Your task to perform on an android device: see creations saved in the google photos Image 0: 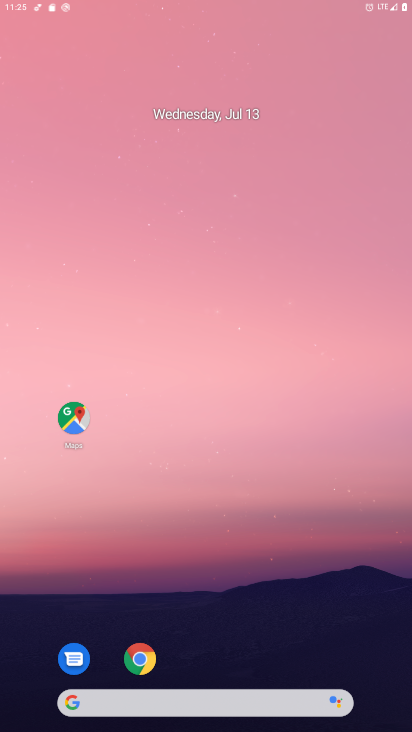
Step 0: press home button
Your task to perform on an android device: see creations saved in the google photos Image 1: 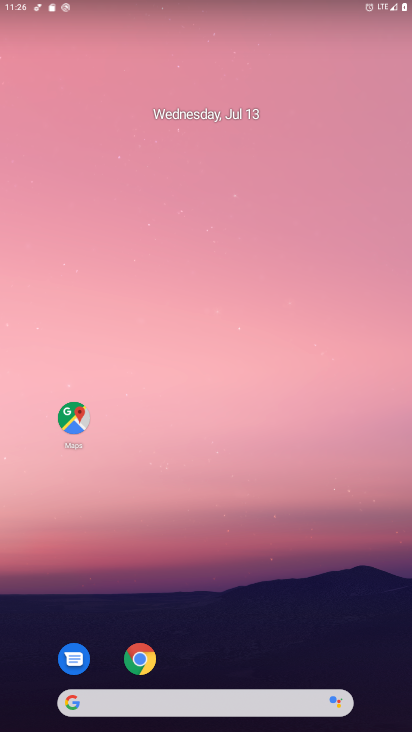
Step 1: drag from (214, 680) to (196, 10)
Your task to perform on an android device: see creations saved in the google photos Image 2: 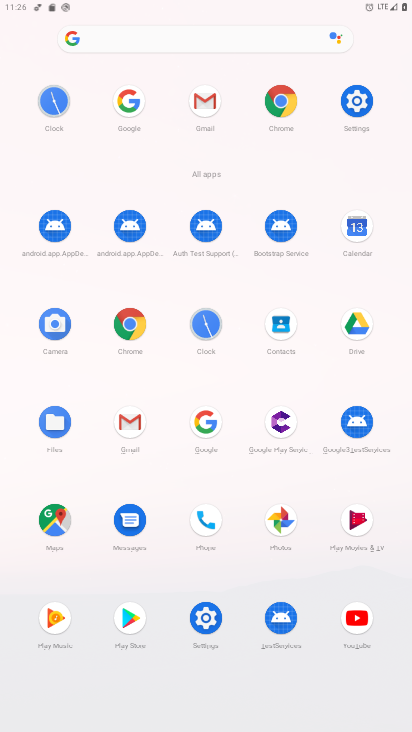
Step 2: click (276, 516)
Your task to perform on an android device: see creations saved in the google photos Image 3: 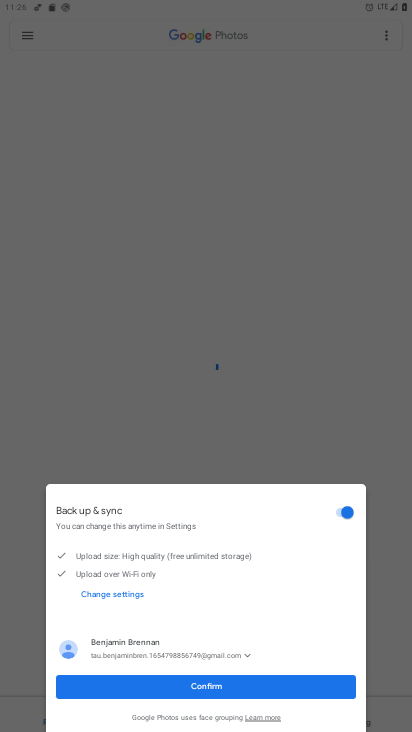
Step 3: click (202, 685)
Your task to perform on an android device: see creations saved in the google photos Image 4: 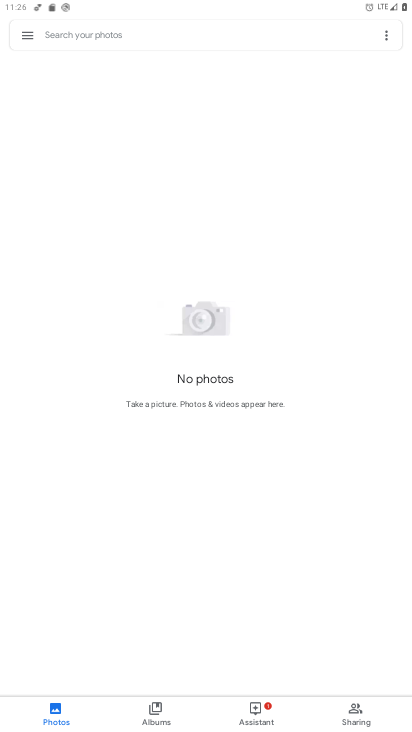
Step 4: click (72, 27)
Your task to perform on an android device: see creations saved in the google photos Image 5: 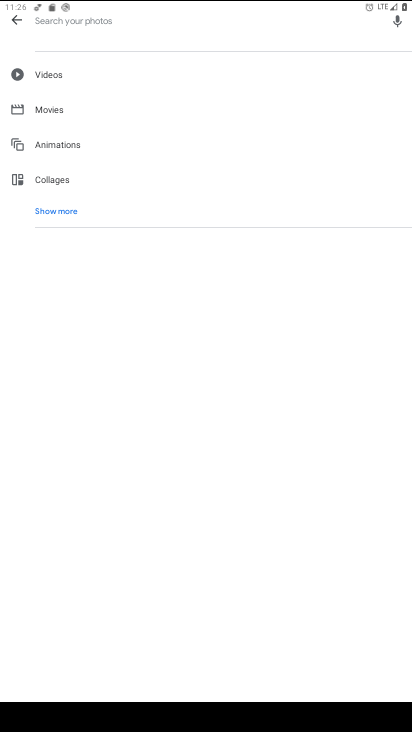
Step 5: click (51, 210)
Your task to perform on an android device: see creations saved in the google photos Image 6: 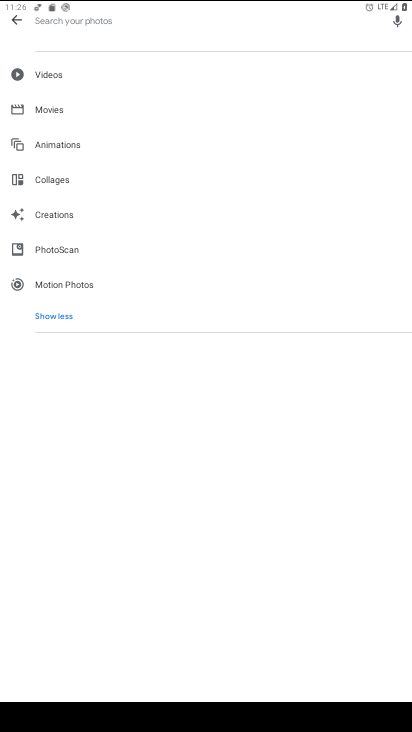
Step 6: click (53, 209)
Your task to perform on an android device: see creations saved in the google photos Image 7: 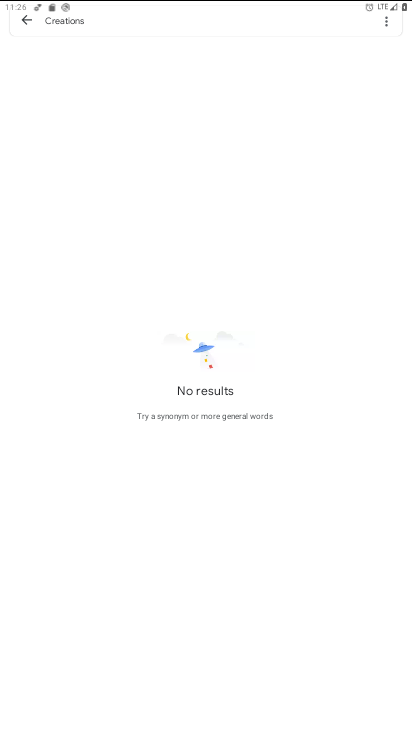
Step 7: task complete